Your task to perform on an android device: delete a single message in the gmail app Image 0: 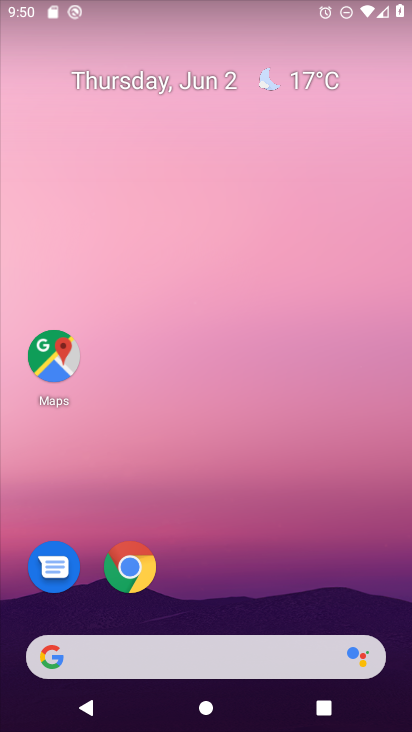
Step 0: drag from (222, 569) to (226, 93)
Your task to perform on an android device: delete a single message in the gmail app Image 1: 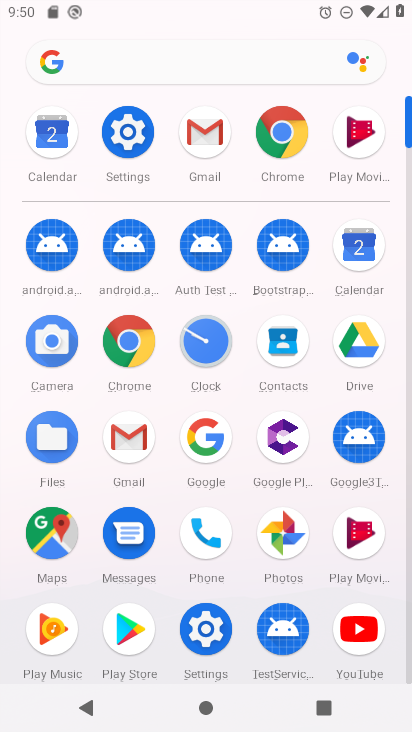
Step 1: click (134, 455)
Your task to perform on an android device: delete a single message in the gmail app Image 2: 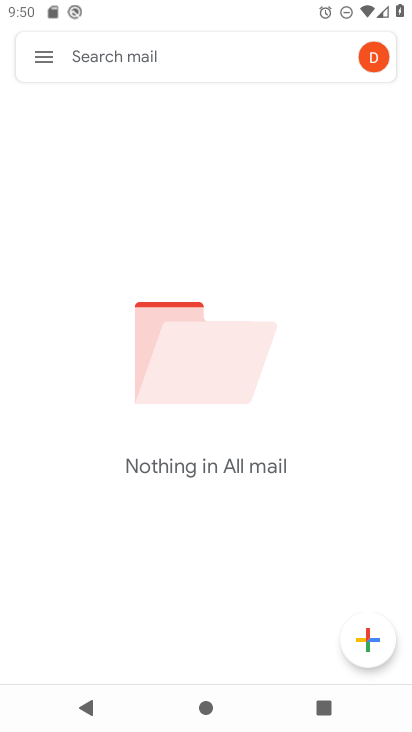
Step 2: task complete